Your task to perform on an android device: Open Chrome and go to the settings page Image 0: 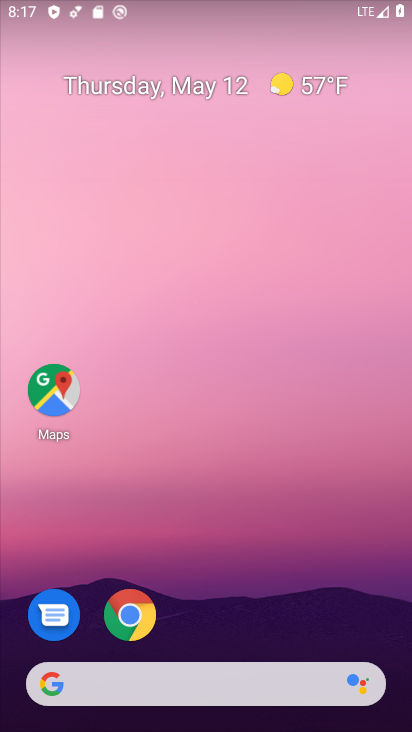
Step 0: drag from (195, 579) to (173, 30)
Your task to perform on an android device: Open Chrome and go to the settings page Image 1: 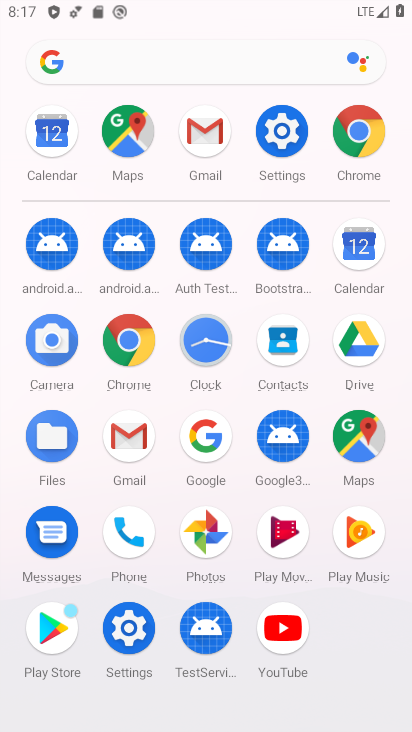
Step 1: drag from (3, 521) to (5, 257)
Your task to perform on an android device: Open Chrome and go to the settings page Image 2: 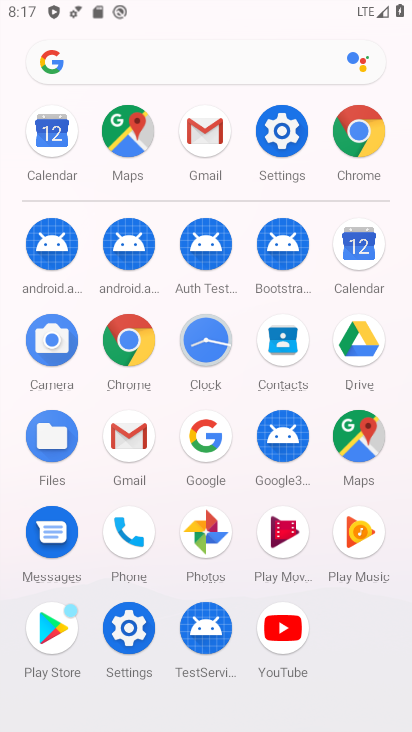
Step 2: click (128, 335)
Your task to perform on an android device: Open Chrome and go to the settings page Image 3: 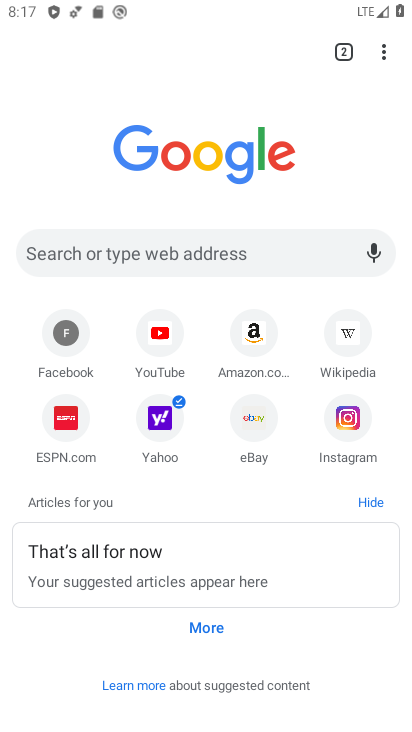
Step 3: task complete